Your task to perform on an android device: toggle javascript in the chrome app Image 0: 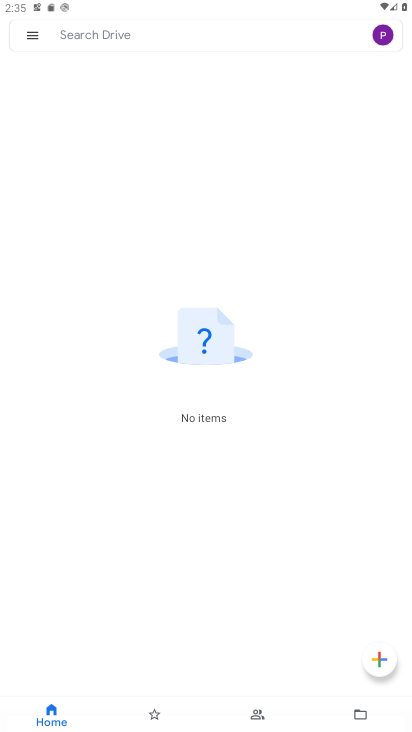
Step 0: press home button
Your task to perform on an android device: toggle javascript in the chrome app Image 1: 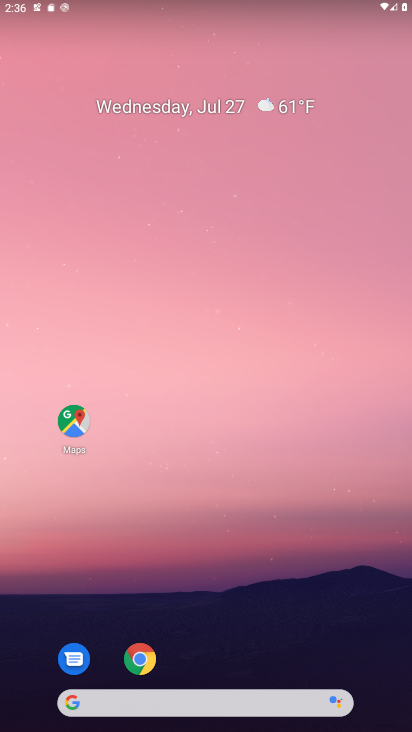
Step 1: click (136, 660)
Your task to perform on an android device: toggle javascript in the chrome app Image 2: 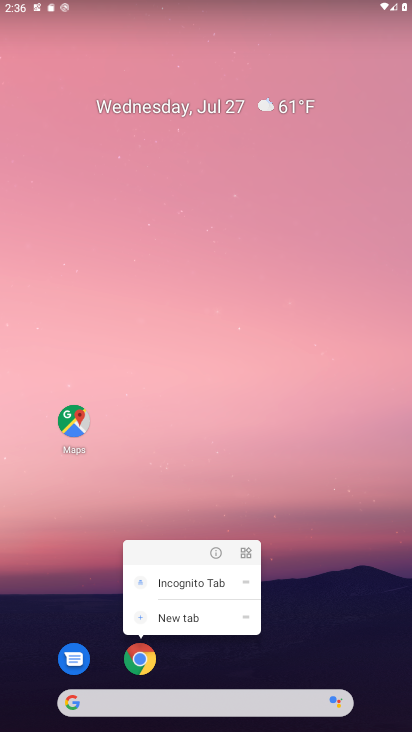
Step 2: click (142, 686)
Your task to perform on an android device: toggle javascript in the chrome app Image 3: 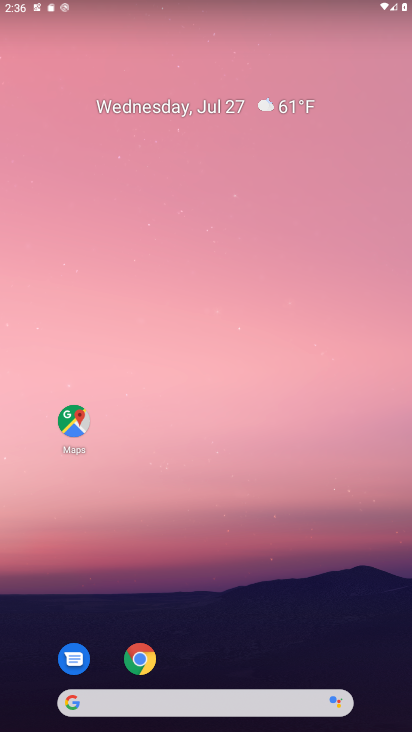
Step 3: click (146, 677)
Your task to perform on an android device: toggle javascript in the chrome app Image 4: 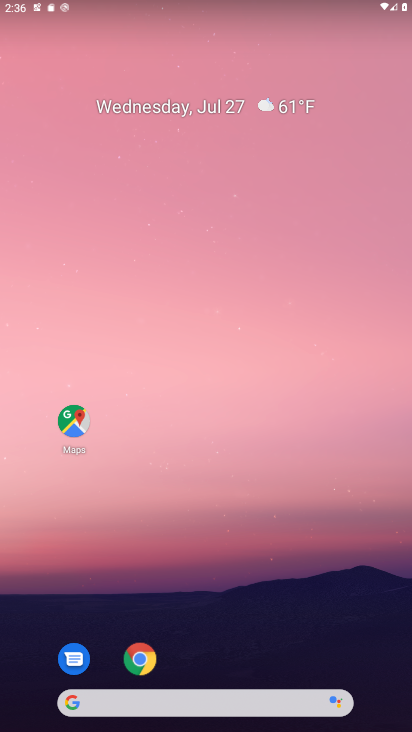
Step 4: click (145, 671)
Your task to perform on an android device: toggle javascript in the chrome app Image 5: 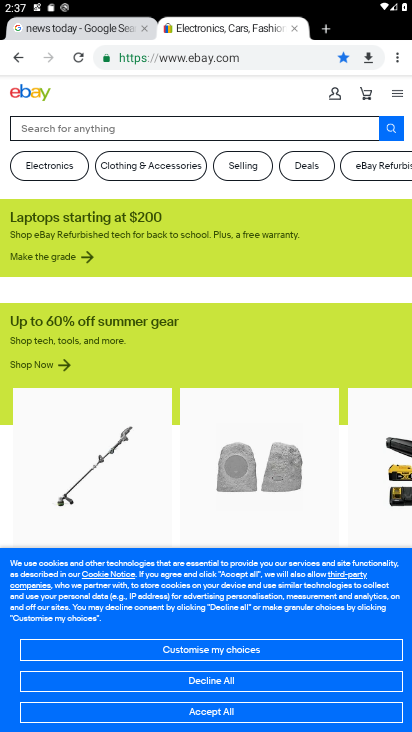
Step 5: drag from (399, 48) to (307, 386)
Your task to perform on an android device: toggle javascript in the chrome app Image 6: 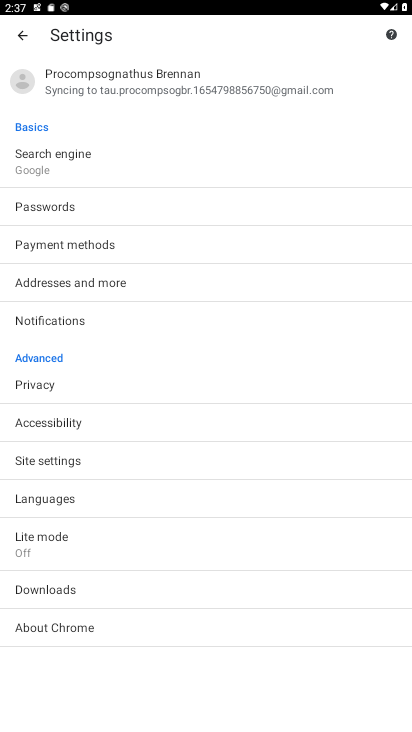
Step 6: click (64, 467)
Your task to perform on an android device: toggle javascript in the chrome app Image 7: 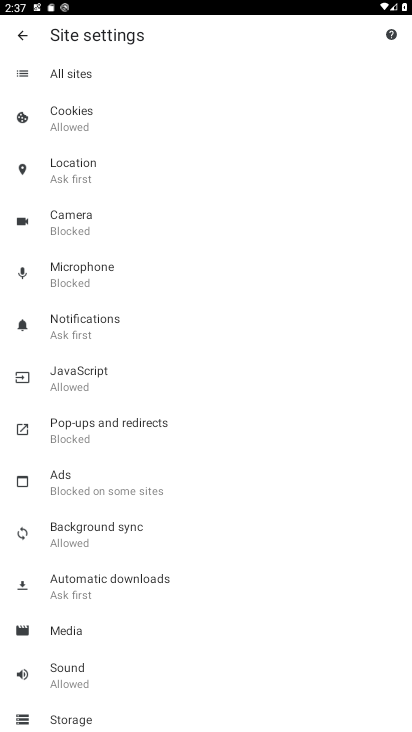
Step 7: click (126, 381)
Your task to perform on an android device: toggle javascript in the chrome app Image 8: 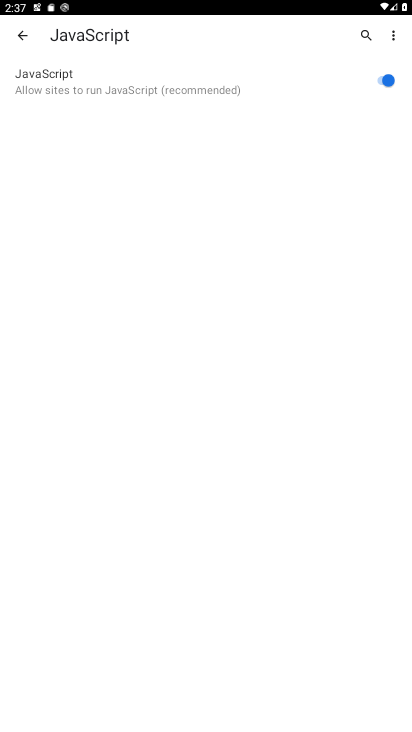
Step 8: click (386, 79)
Your task to perform on an android device: toggle javascript in the chrome app Image 9: 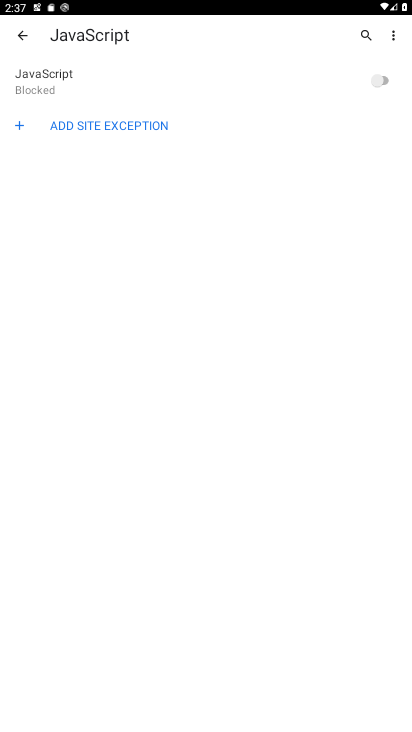
Step 9: task complete